Your task to perform on an android device: turn on location history Image 0: 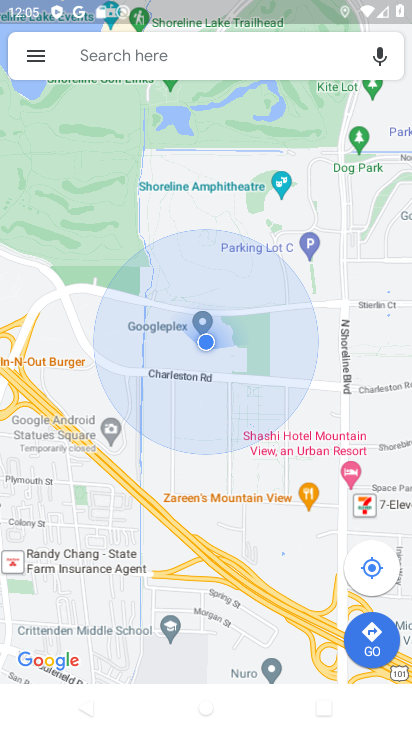
Step 0: drag from (225, 654) to (225, 390)
Your task to perform on an android device: turn on location history Image 1: 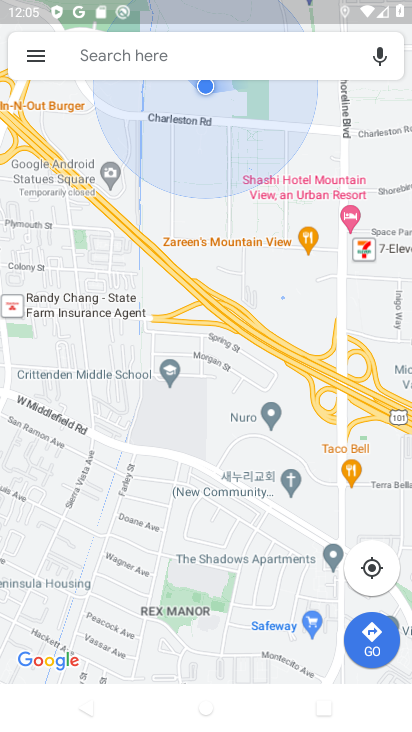
Step 1: drag from (196, 626) to (247, 341)
Your task to perform on an android device: turn on location history Image 2: 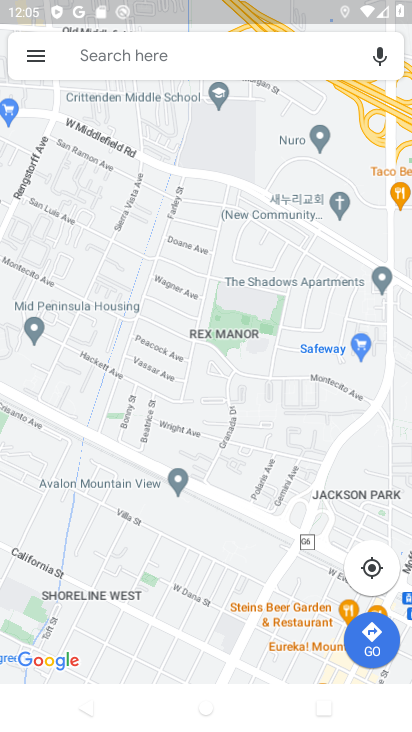
Step 2: drag from (244, 643) to (271, 183)
Your task to perform on an android device: turn on location history Image 3: 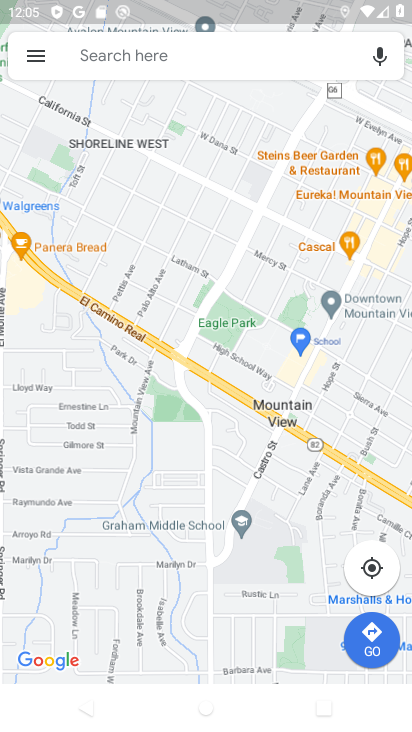
Step 3: drag from (271, 195) to (293, 634)
Your task to perform on an android device: turn on location history Image 4: 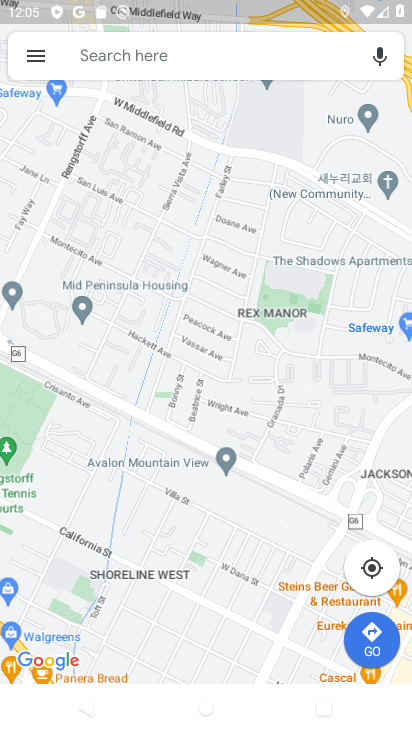
Step 4: click (37, 52)
Your task to perform on an android device: turn on location history Image 5: 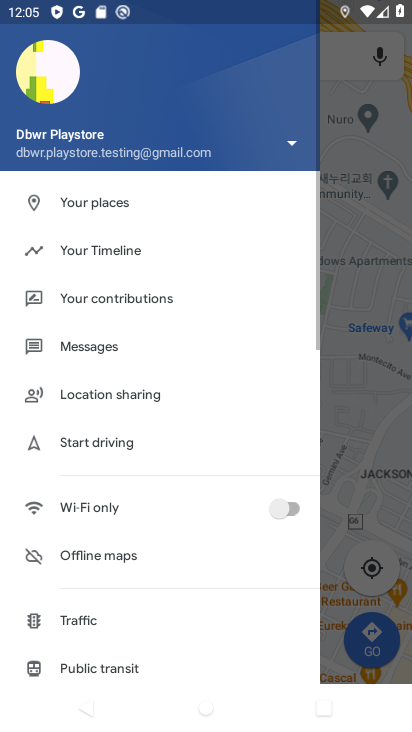
Step 5: drag from (162, 596) to (191, 320)
Your task to perform on an android device: turn on location history Image 6: 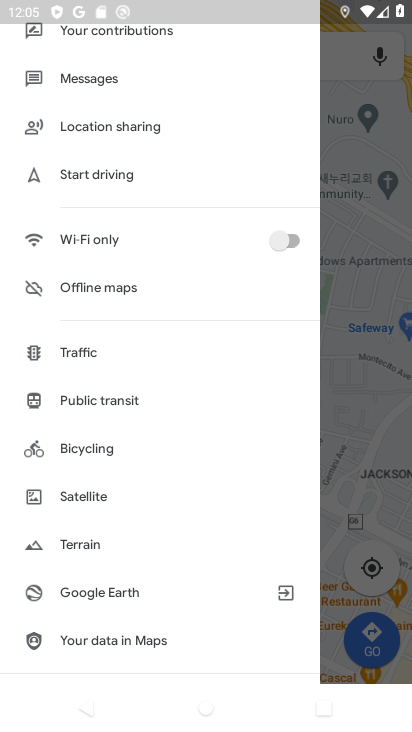
Step 6: drag from (148, 597) to (221, 349)
Your task to perform on an android device: turn on location history Image 7: 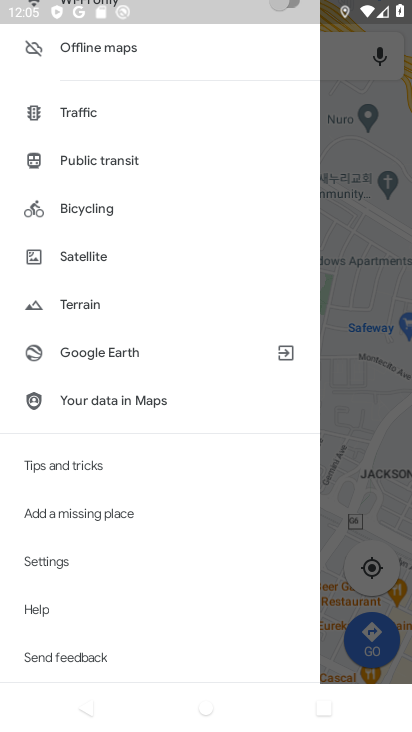
Step 7: press home button
Your task to perform on an android device: turn on location history Image 8: 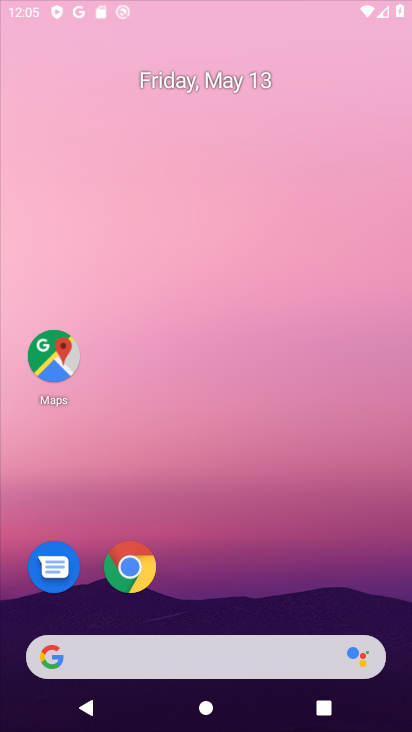
Step 8: drag from (176, 624) to (214, 60)
Your task to perform on an android device: turn on location history Image 9: 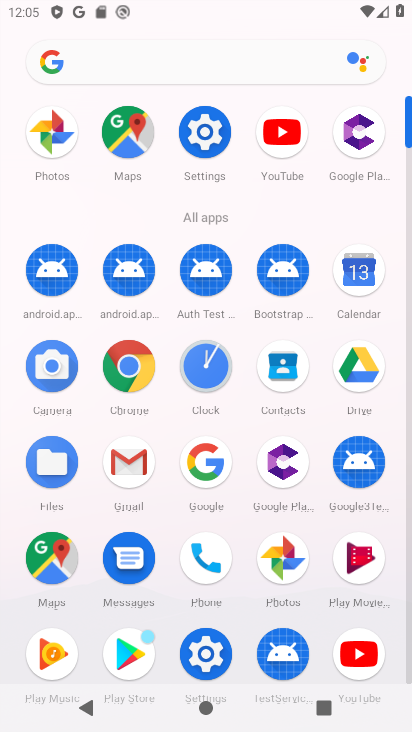
Step 9: click (214, 148)
Your task to perform on an android device: turn on location history Image 10: 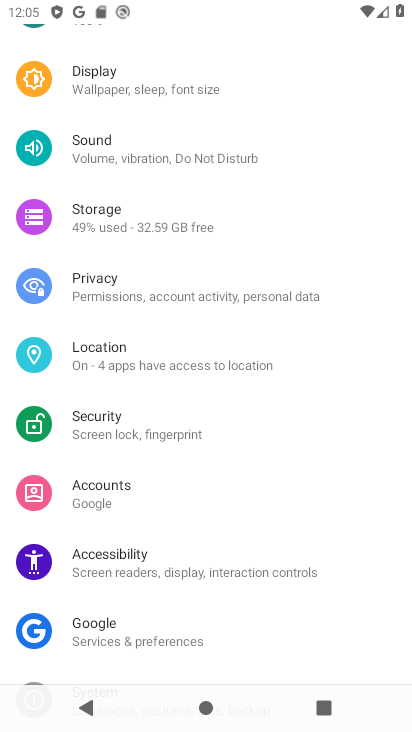
Step 10: click (130, 366)
Your task to perform on an android device: turn on location history Image 11: 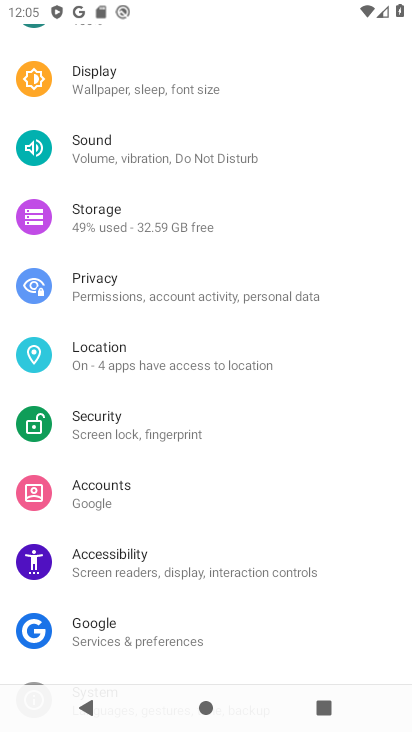
Step 11: click (130, 366)
Your task to perform on an android device: turn on location history Image 12: 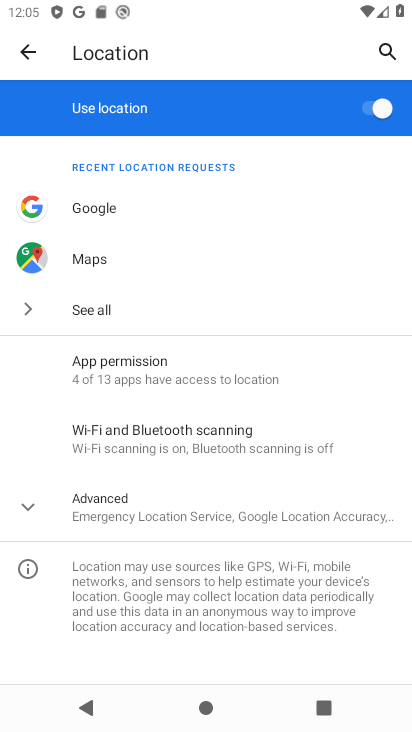
Step 12: click (215, 615)
Your task to perform on an android device: turn on location history Image 13: 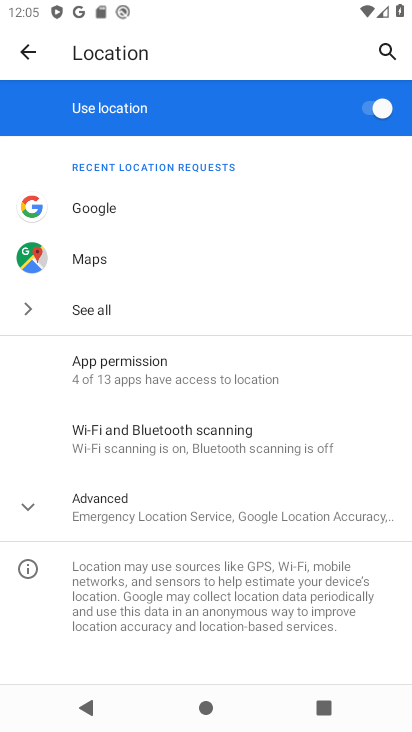
Step 13: click (183, 508)
Your task to perform on an android device: turn on location history Image 14: 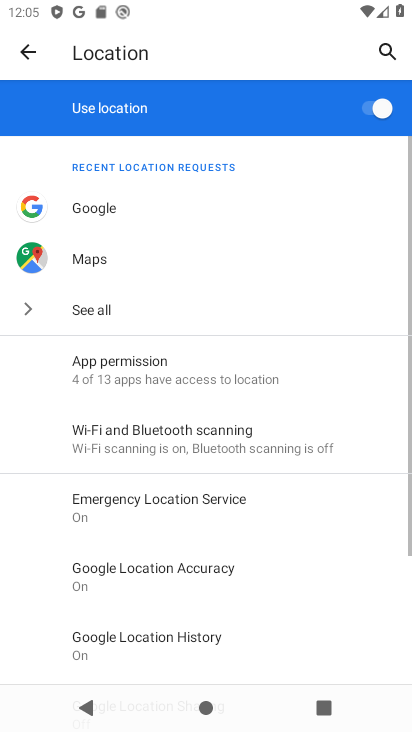
Step 14: drag from (235, 600) to (231, 327)
Your task to perform on an android device: turn on location history Image 15: 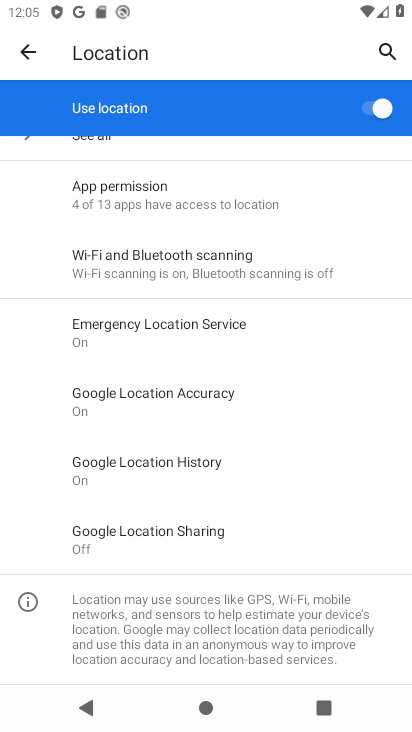
Step 15: click (189, 483)
Your task to perform on an android device: turn on location history Image 16: 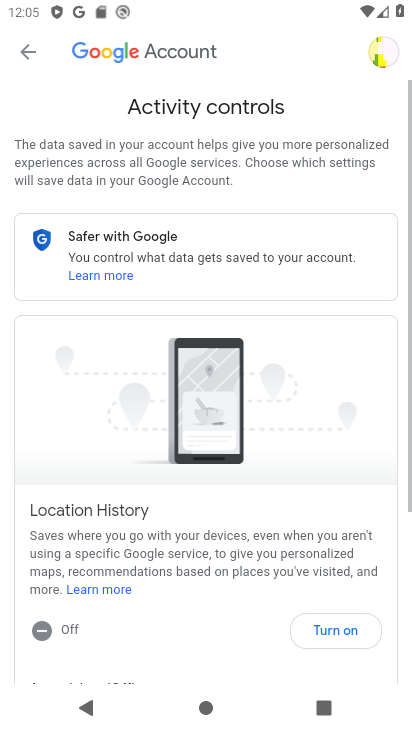
Step 16: drag from (248, 574) to (291, 311)
Your task to perform on an android device: turn on location history Image 17: 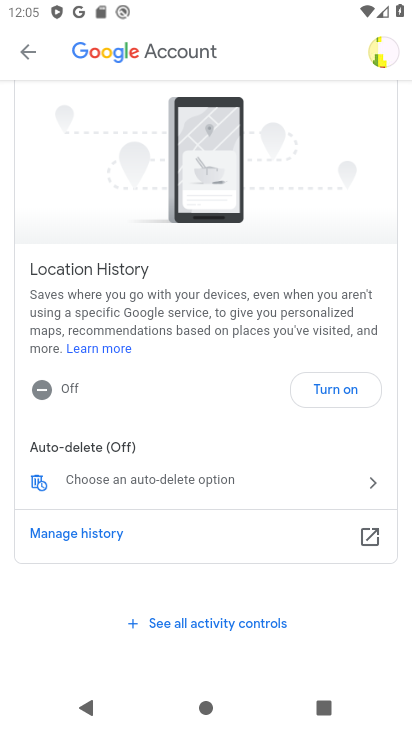
Step 17: click (328, 385)
Your task to perform on an android device: turn on location history Image 18: 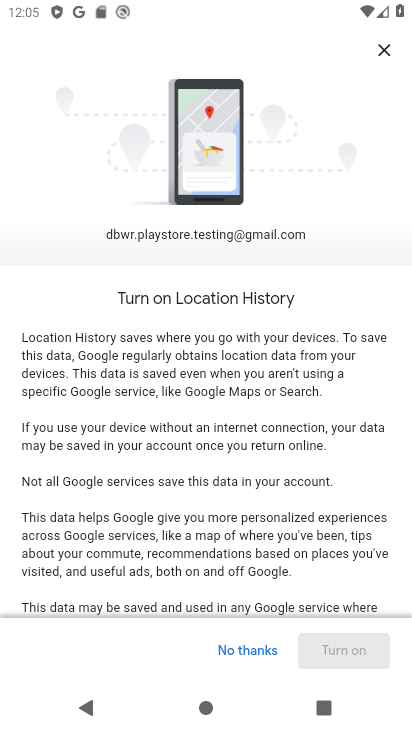
Step 18: drag from (249, 600) to (333, 132)
Your task to perform on an android device: turn on location history Image 19: 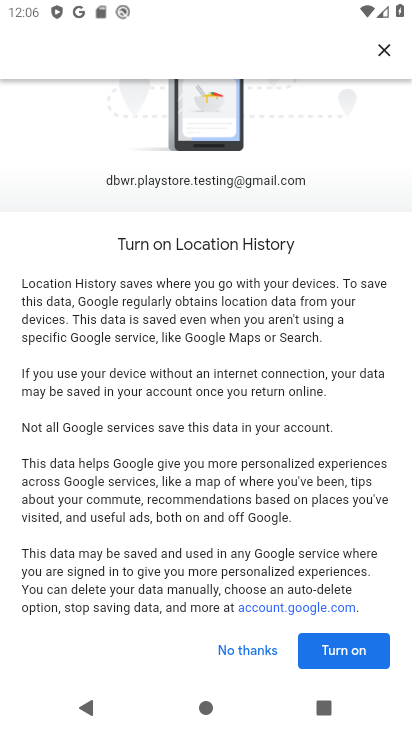
Step 19: click (333, 682)
Your task to perform on an android device: turn on location history Image 20: 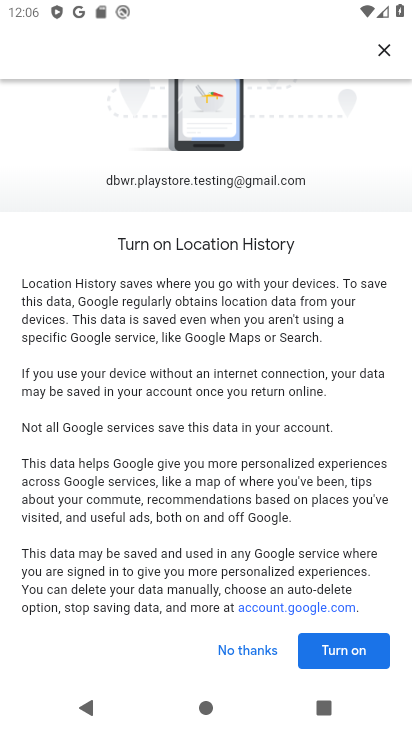
Step 20: click (338, 662)
Your task to perform on an android device: turn on location history Image 21: 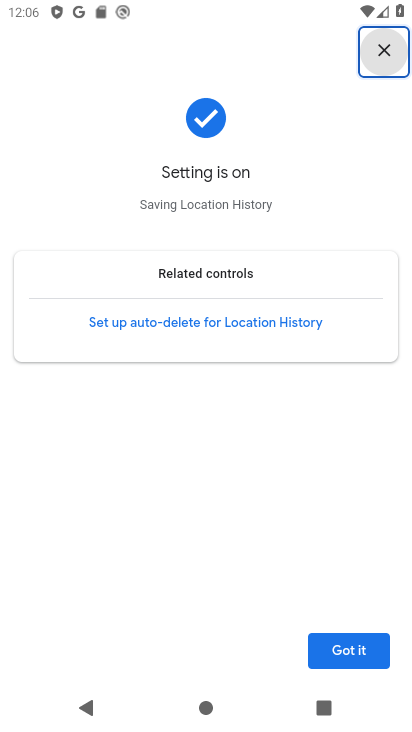
Step 21: click (345, 657)
Your task to perform on an android device: turn on location history Image 22: 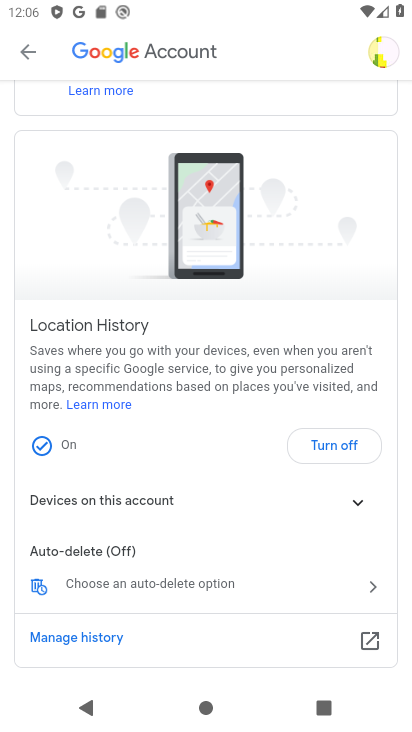
Step 22: task complete